Your task to perform on an android device: Open the calendar and show me this week's events? Image 0: 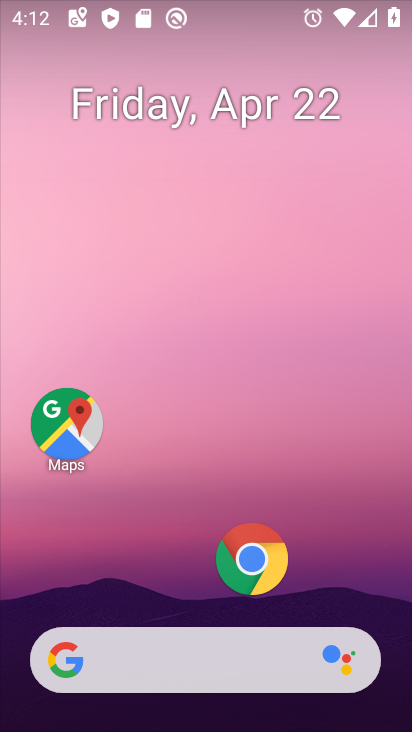
Step 0: drag from (179, 586) to (290, 17)
Your task to perform on an android device: Open the calendar and show me this week's events? Image 1: 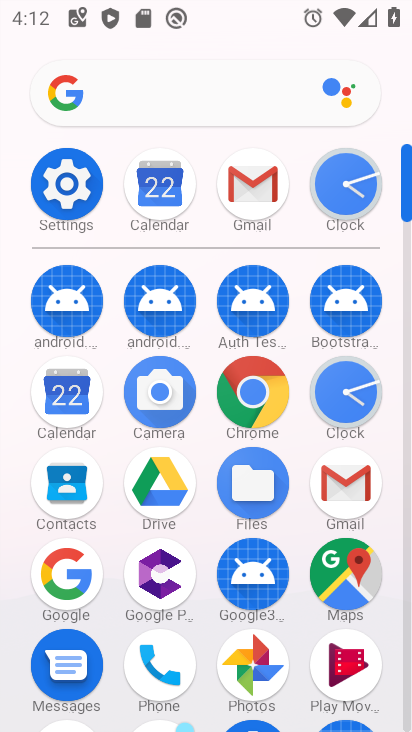
Step 1: click (64, 398)
Your task to perform on an android device: Open the calendar and show me this week's events? Image 2: 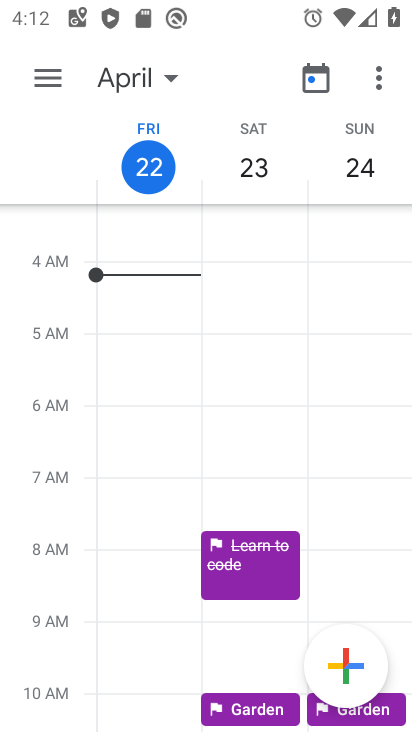
Step 2: click (46, 75)
Your task to perform on an android device: Open the calendar and show me this week's events? Image 3: 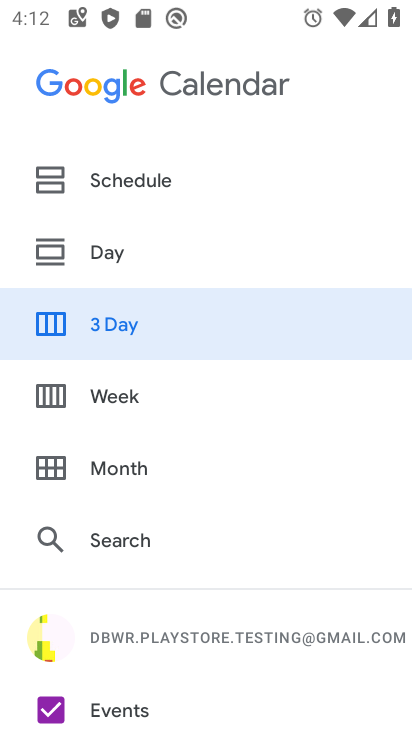
Step 3: drag from (118, 566) to (194, 434)
Your task to perform on an android device: Open the calendar and show me this week's events? Image 4: 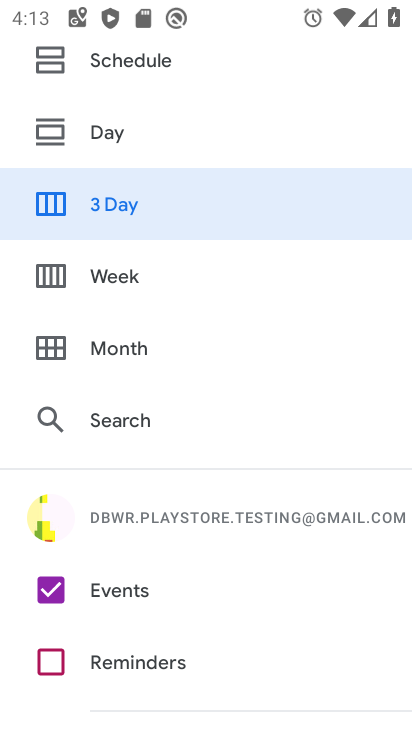
Step 4: click (103, 271)
Your task to perform on an android device: Open the calendar and show me this week's events? Image 5: 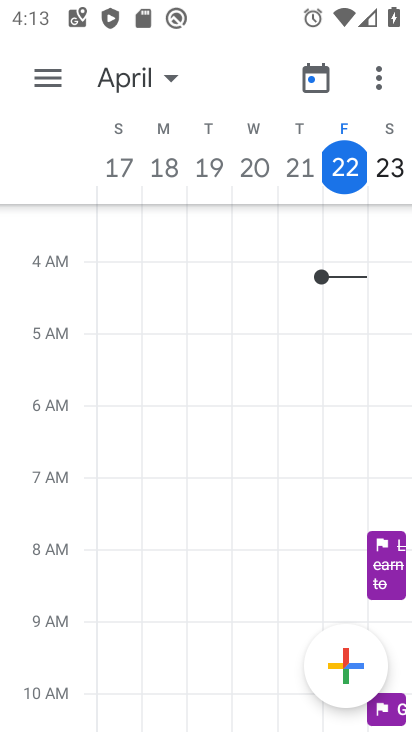
Step 5: task complete